Your task to perform on an android device: Show me popular games on the Play Store Image 0: 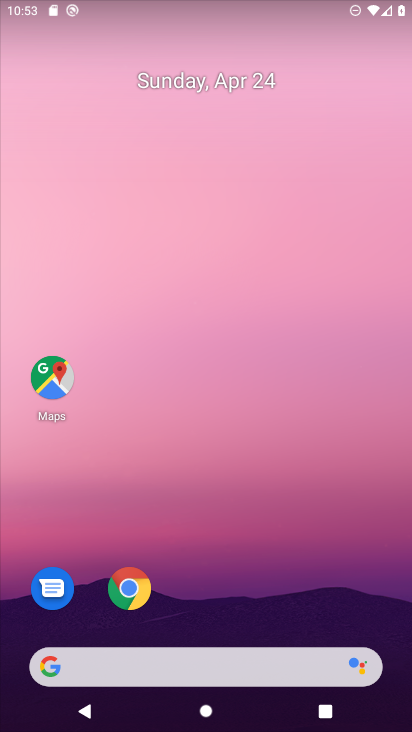
Step 0: drag from (210, 655) to (167, 132)
Your task to perform on an android device: Show me popular games on the Play Store Image 1: 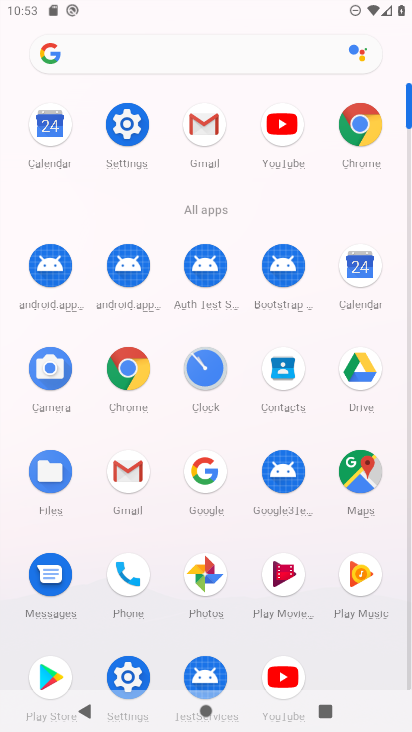
Step 1: click (46, 681)
Your task to perform on an android device: Show me popular games on the Play Store Image 2: 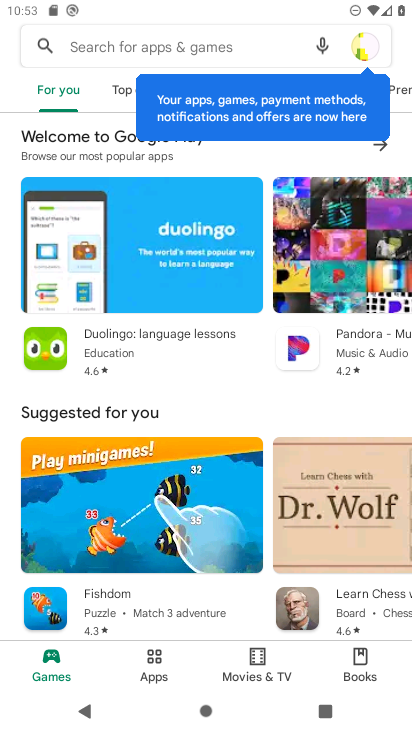
Step 2: drag from (234, 432) to (137, 13)
Your task to perform on an android device: Show me popular games on the Play Store Image 3: 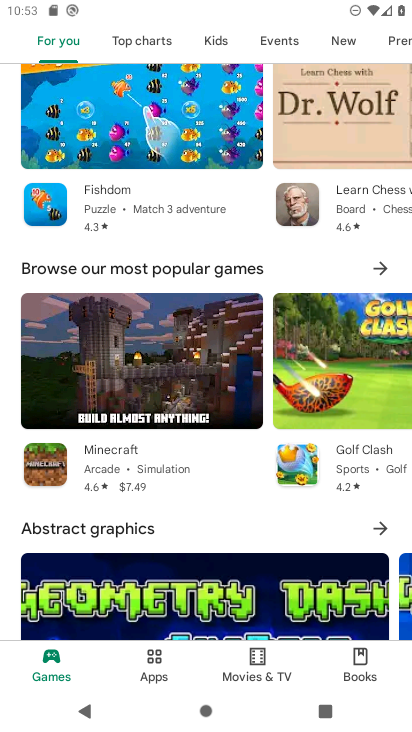
Step 3: click (381, 273)
Your task to perform on an android device: Show me popular games on the Play Store Image 4: 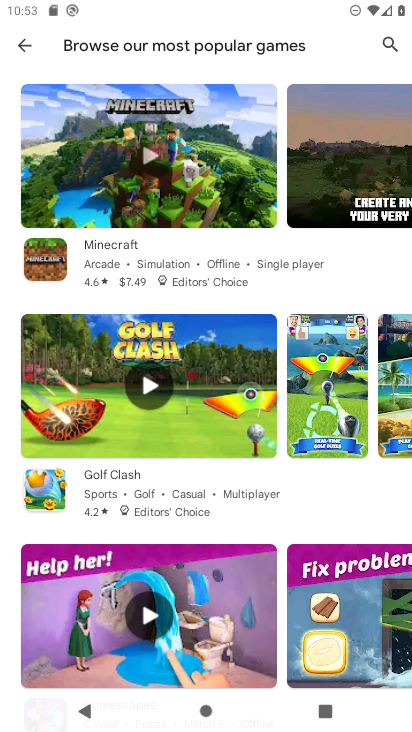
Step 4: task complete